Your task to perform on an android device: Do I have any events this weekend? Image 0: 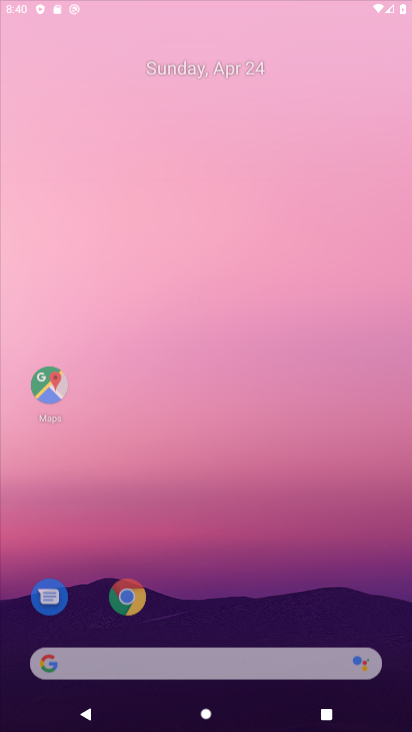
Step 0: click (218, 160)
Your task to perform on an android device: Do I have any events this weekend? Image 1: 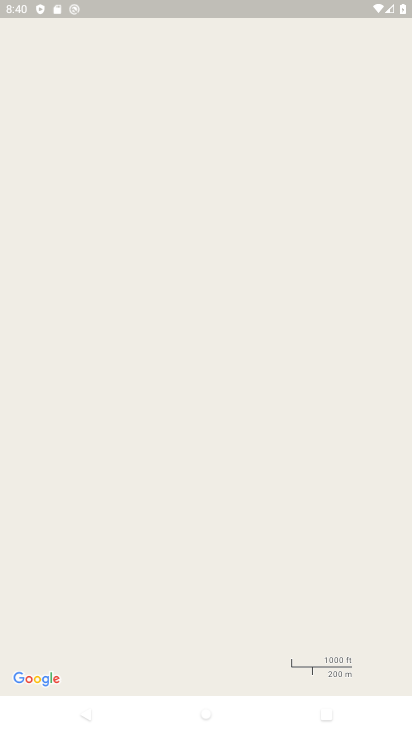
Step 1: press home button
Your task to perform on an android device: Do I have any events this weekend? Image 2: 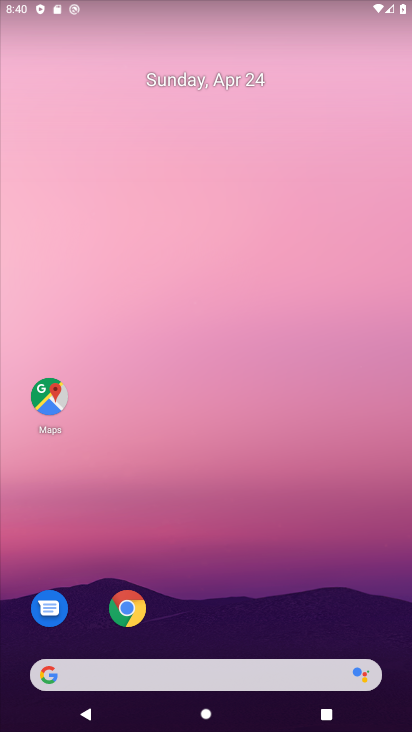
Step 2: drag from (200, 608) to (210, 187)
Your task to perform on an android device: Do I have any events this weekend? Image 3: 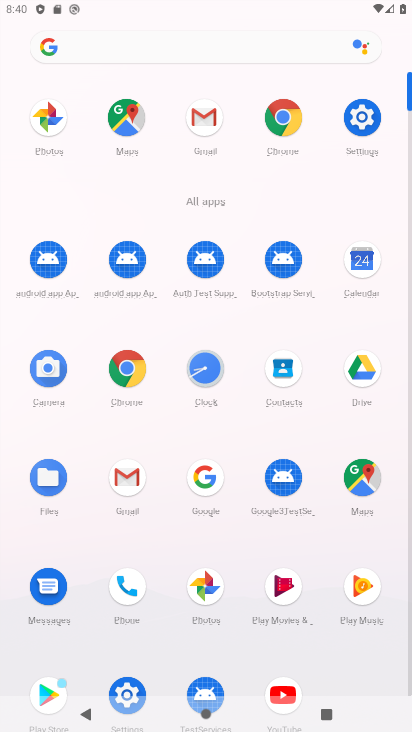
Step 3: click (360, 257)
Your task to perform on an android device: Do I have any events this weekend? Image 4: 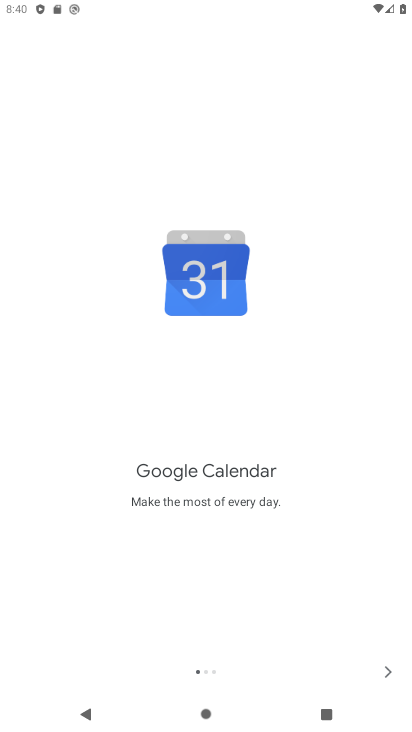
Step 4: click (383, 676)
Your task to perform on an android device: Do I have any events this weekend? Image 5: 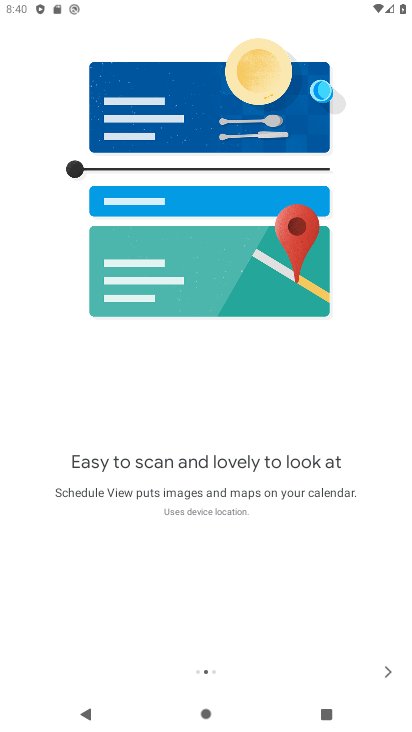
Step 5: click (383, 676)
Your task to perform on an android device: Do I have any events this weekend? Image 6: 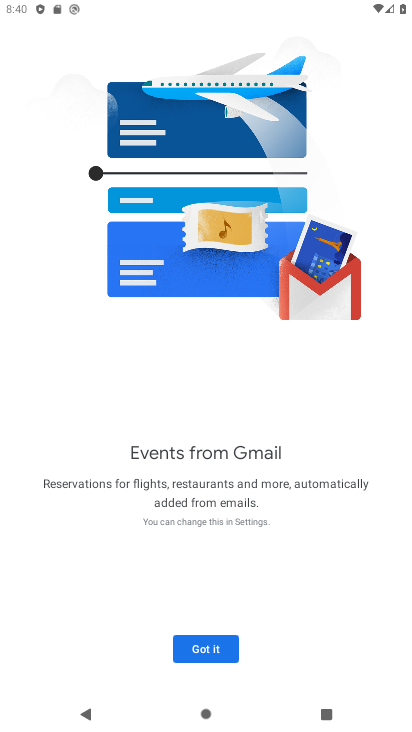
Step 6: click (192, 649)
Your task to perform on an android device: Do I have any events this weekend? Image 7: 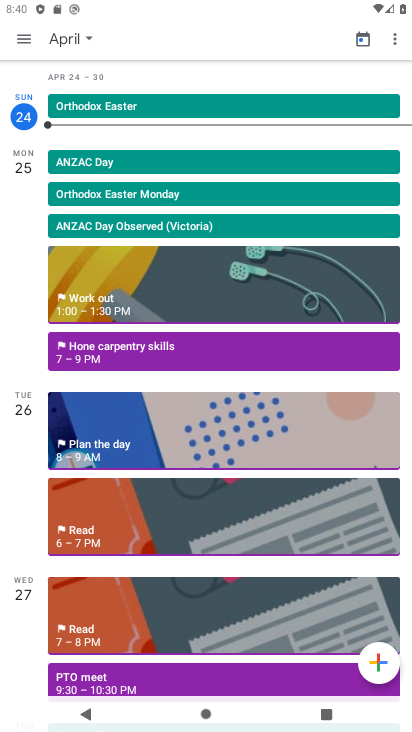
Step 7: click (79, 35)
Your task to perform on an android device: Do I have any events this weekend? Image 8: 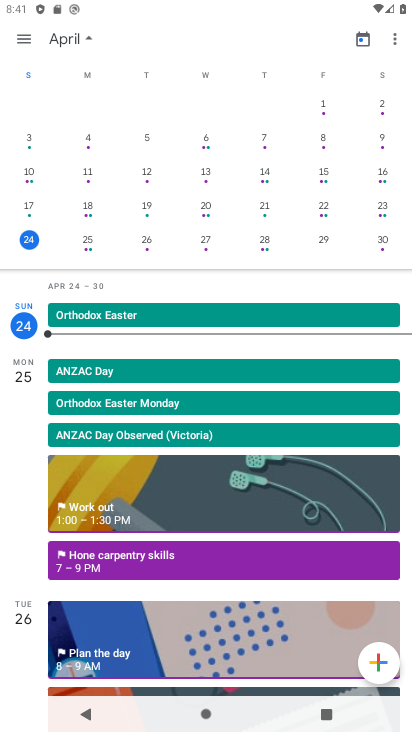
Step 8: click (381, 236)
Your task to perform on an android device: Do I have any events this weekend? Image 9: 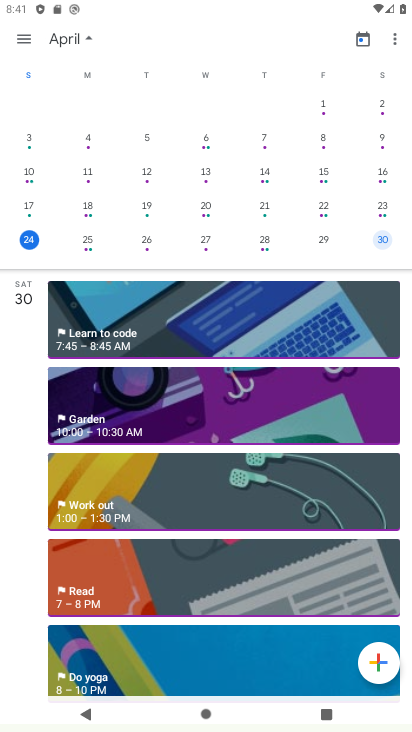
Step 9: task complete